Your task to perform on an android device: install app "Contacts" Image 0: 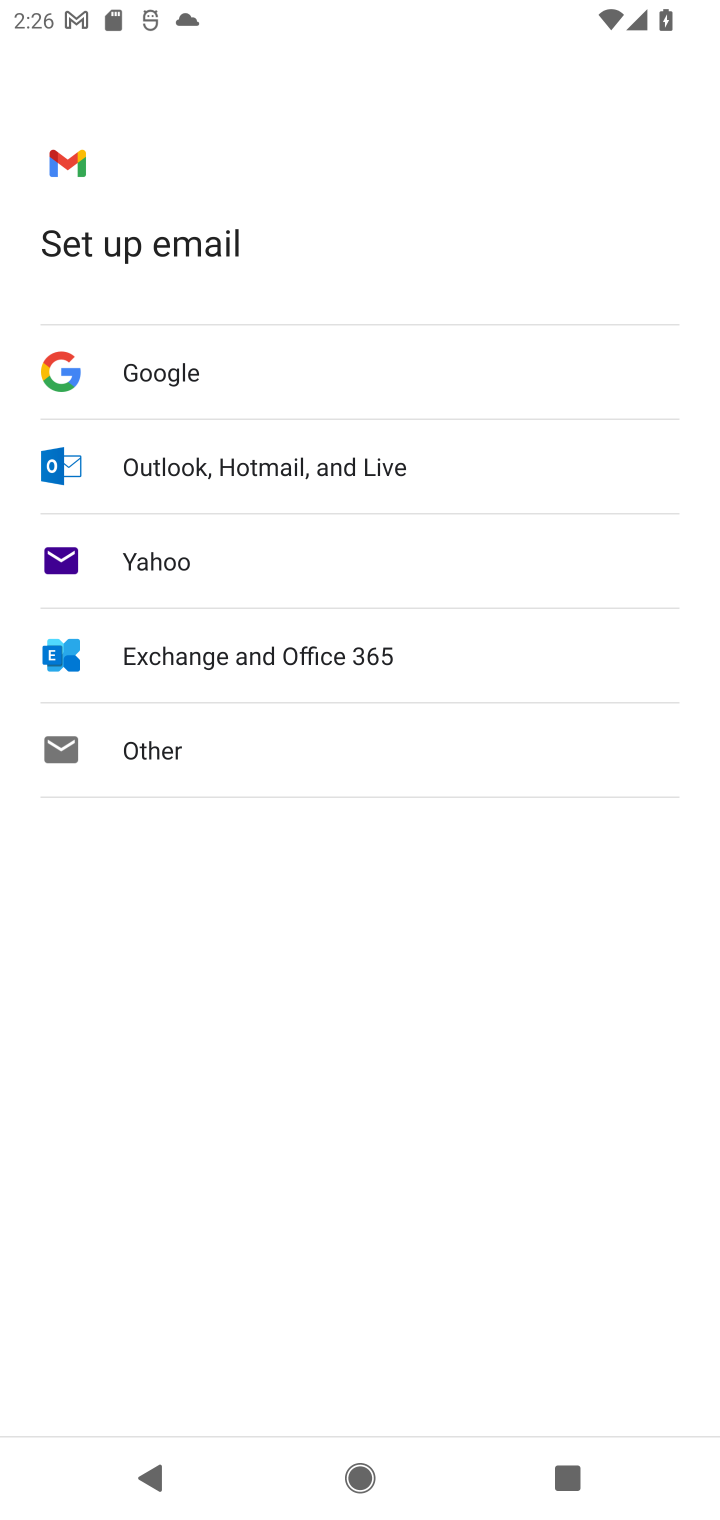
Step 0: press home button
Your task to perform on an android device: install app "Contacts" Image 1: 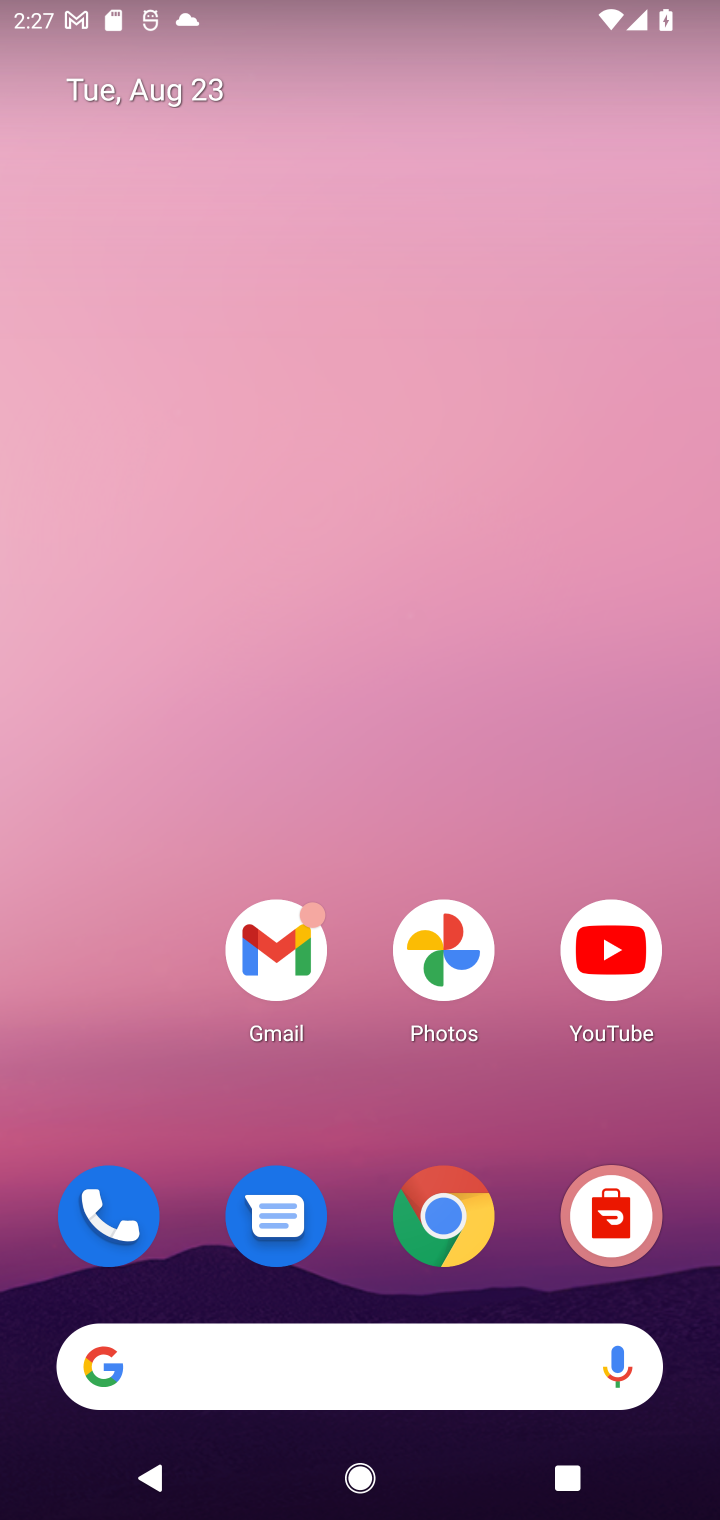
Step 1: drag from (313, 1302) to (369, 321)
Your task to perform on an android device: install app "Contacts" Image 2: 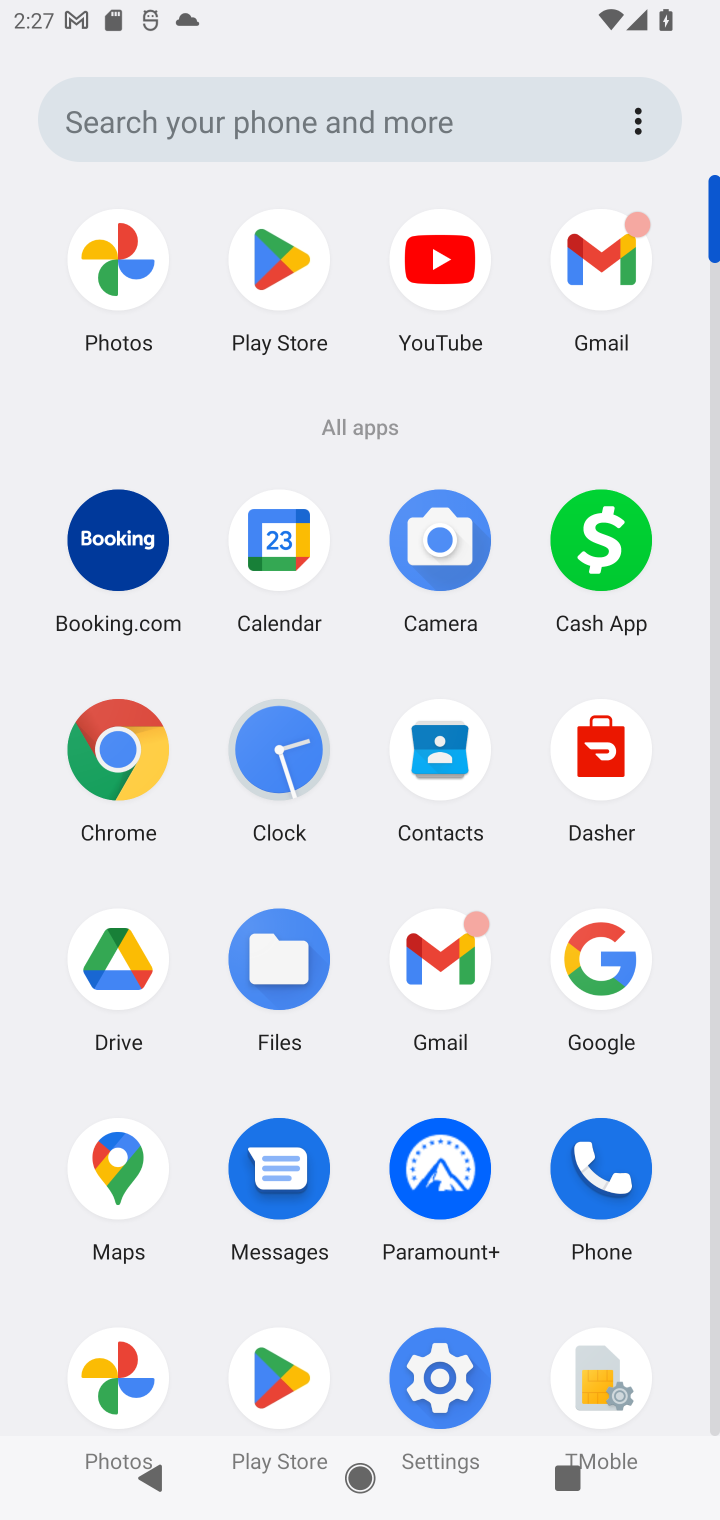
Step 2: click (268, 260)
Your task to perform on an android device: install app "Contacts" Image 3: 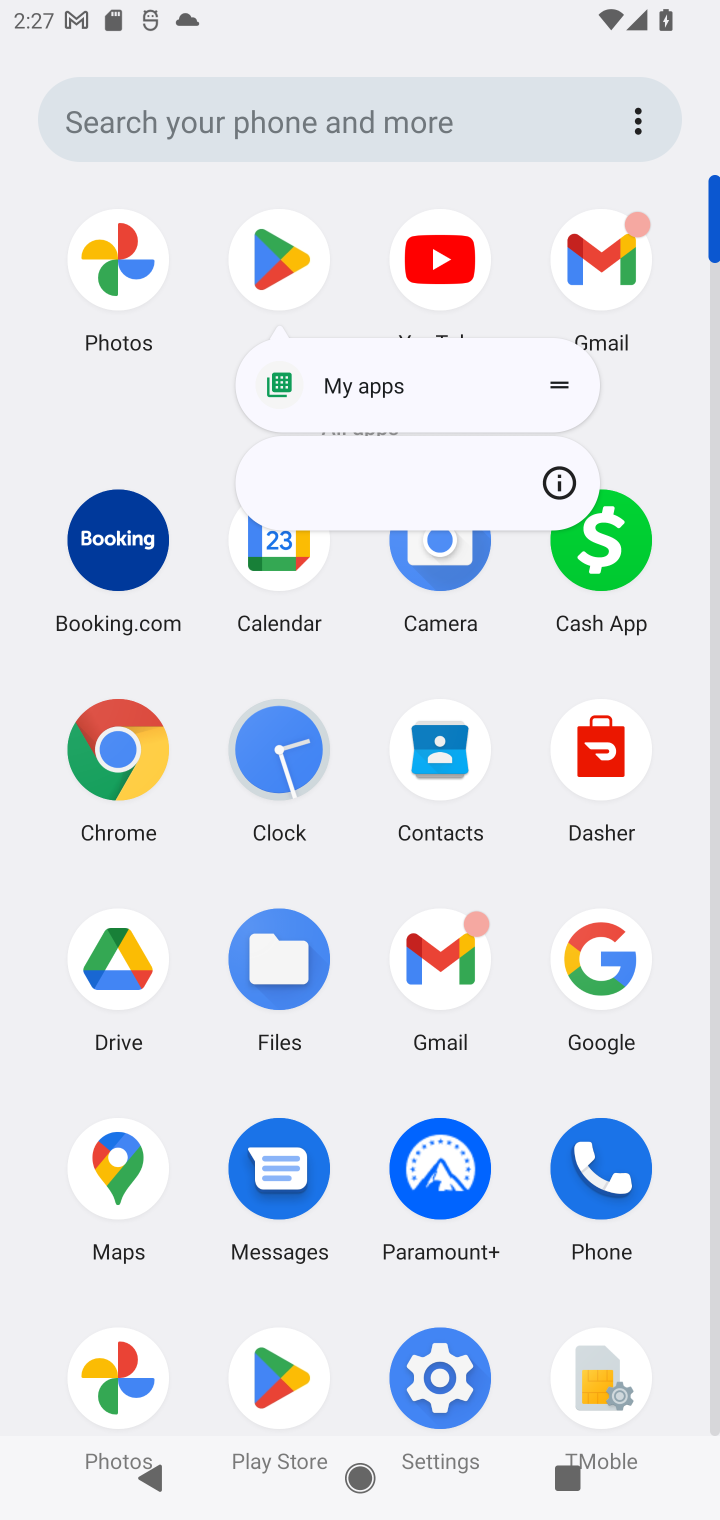
Step 3: click (281, 284)
Your task to perform on an android device: install app "Contacts" Image 4: 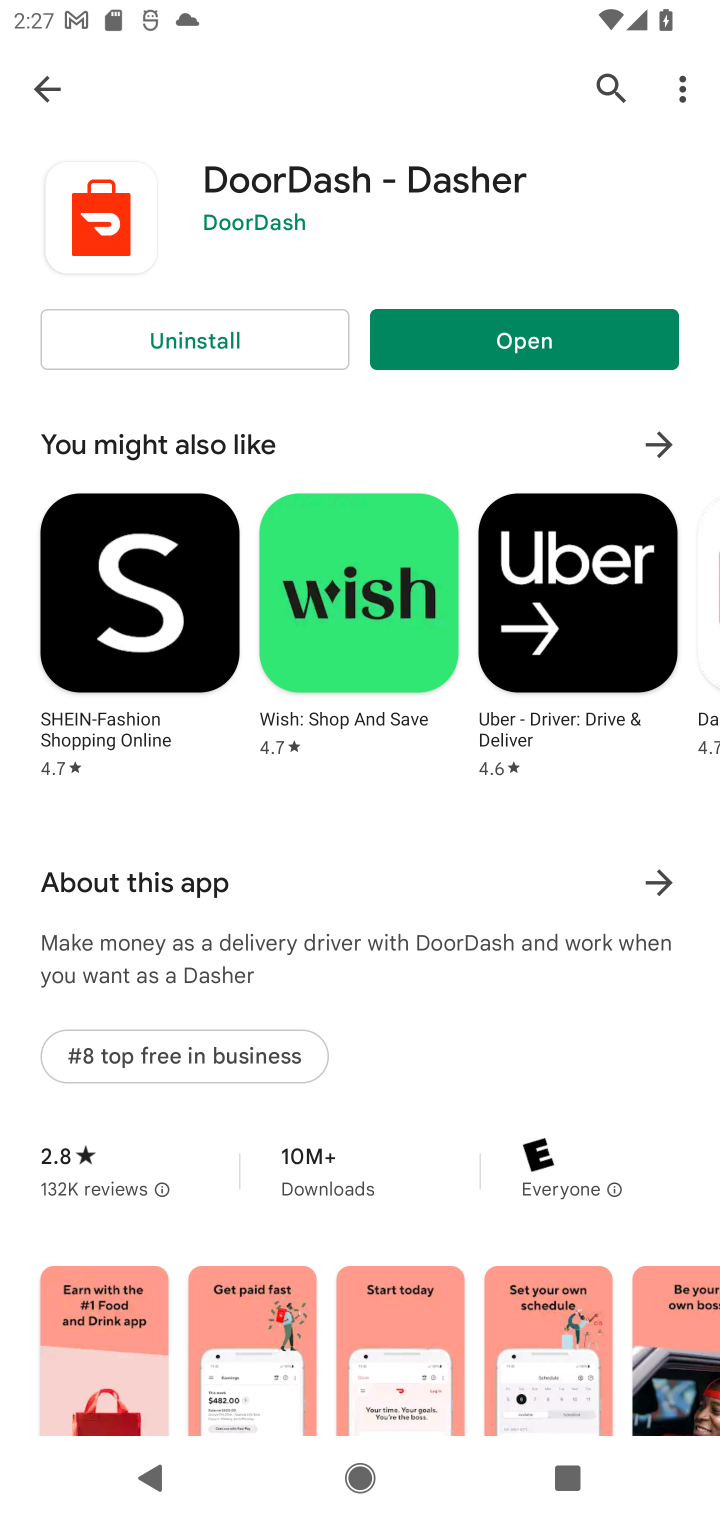
Step 4: click (42, 72)
Your task to perform on an android device: install app "Contacts" Image 5: 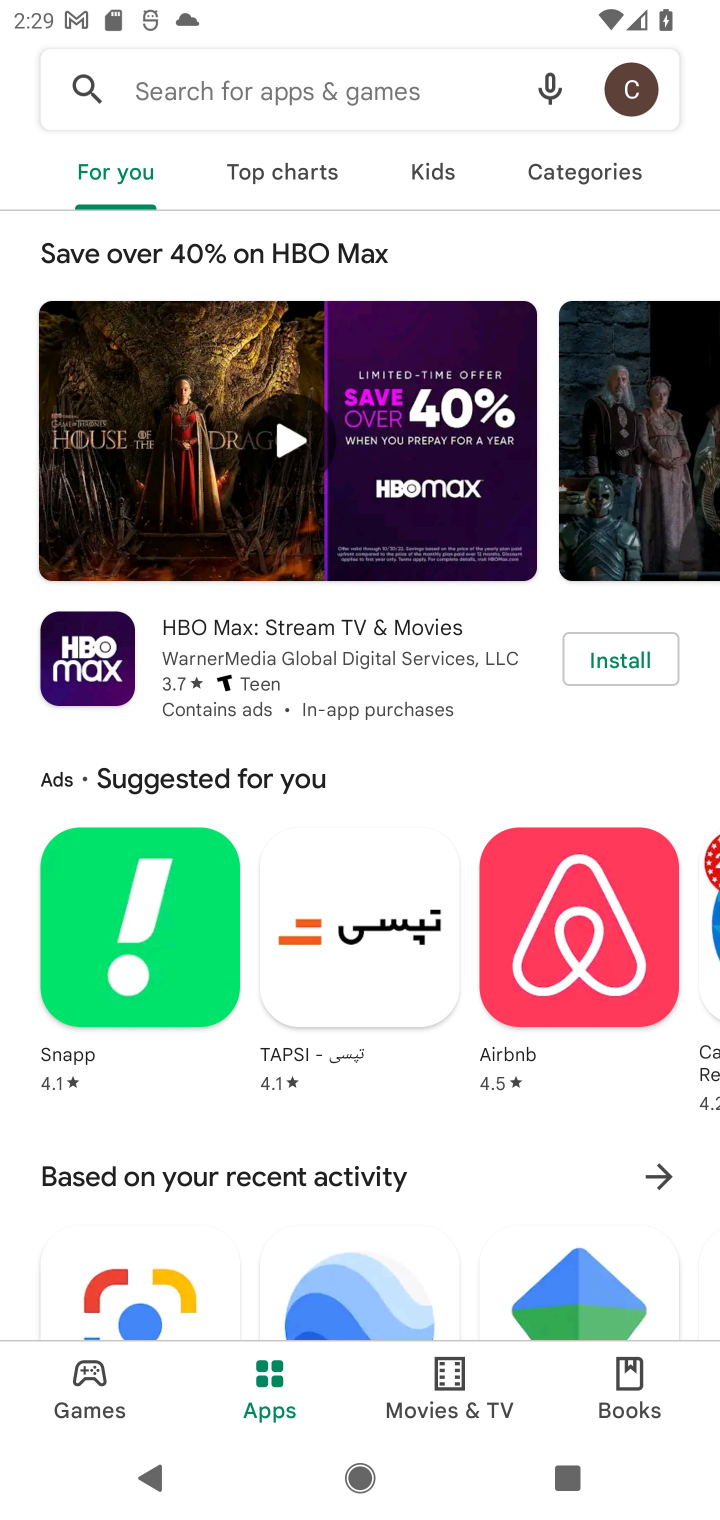
Step 5: click (364, 80)
Your task to perform on an android device: install app "Contacts" Image 6: 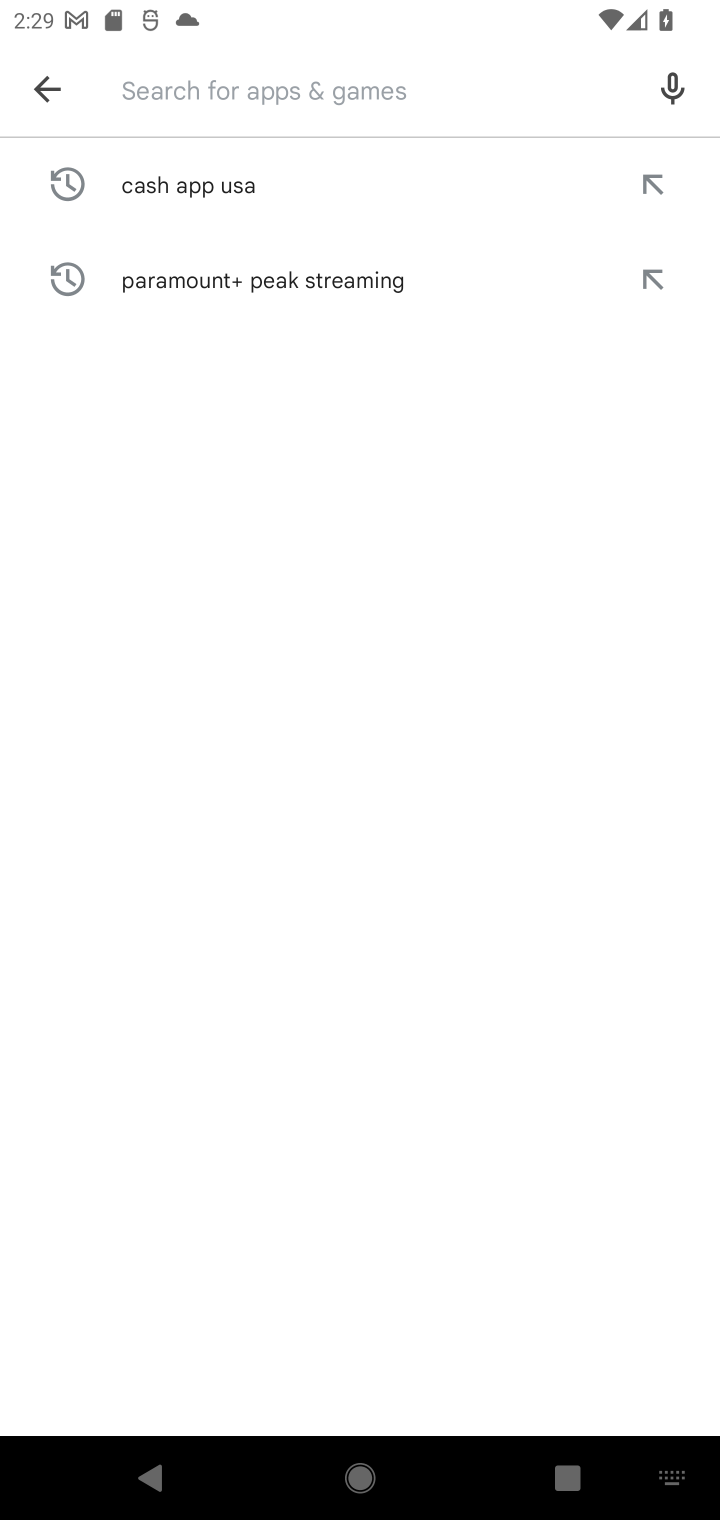
Step 6: type "Contacts "
Your task to perform on an android device: install app "Contacts" Image 7: 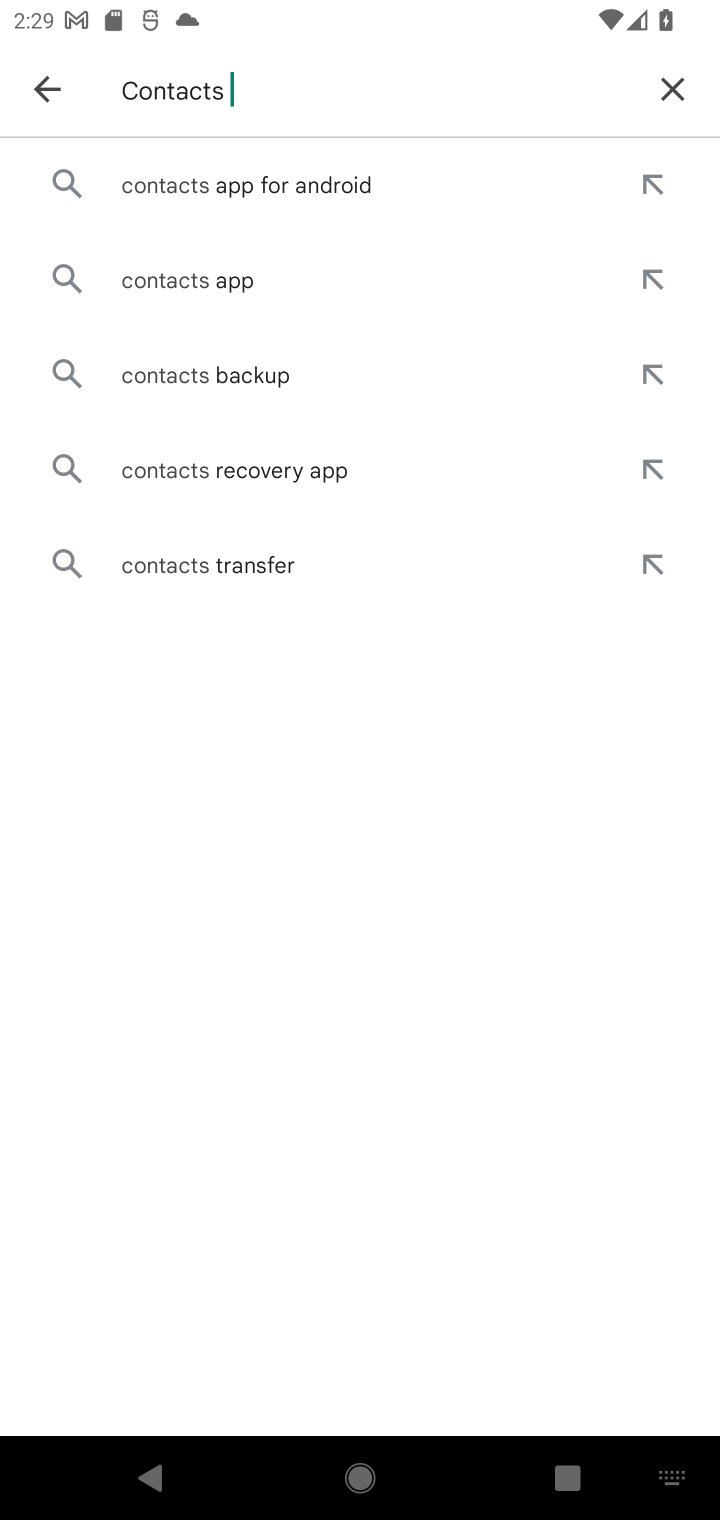
Step 7: click (217, 158)
Your task to perform on an android device: install app "Contacts" Image 8: 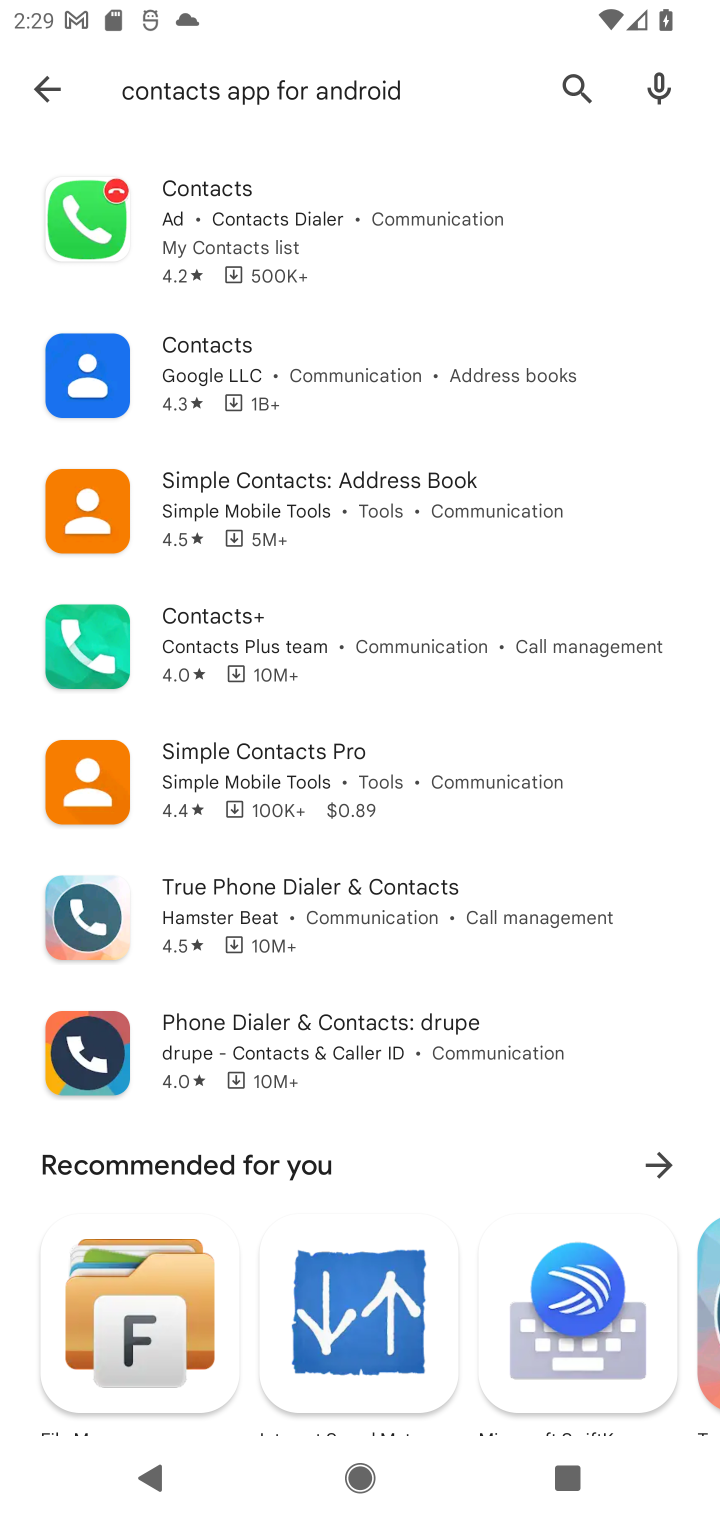
Step 8: click (342, 214)
Your task to perform on an android device: install app "Contacts" Image 9: 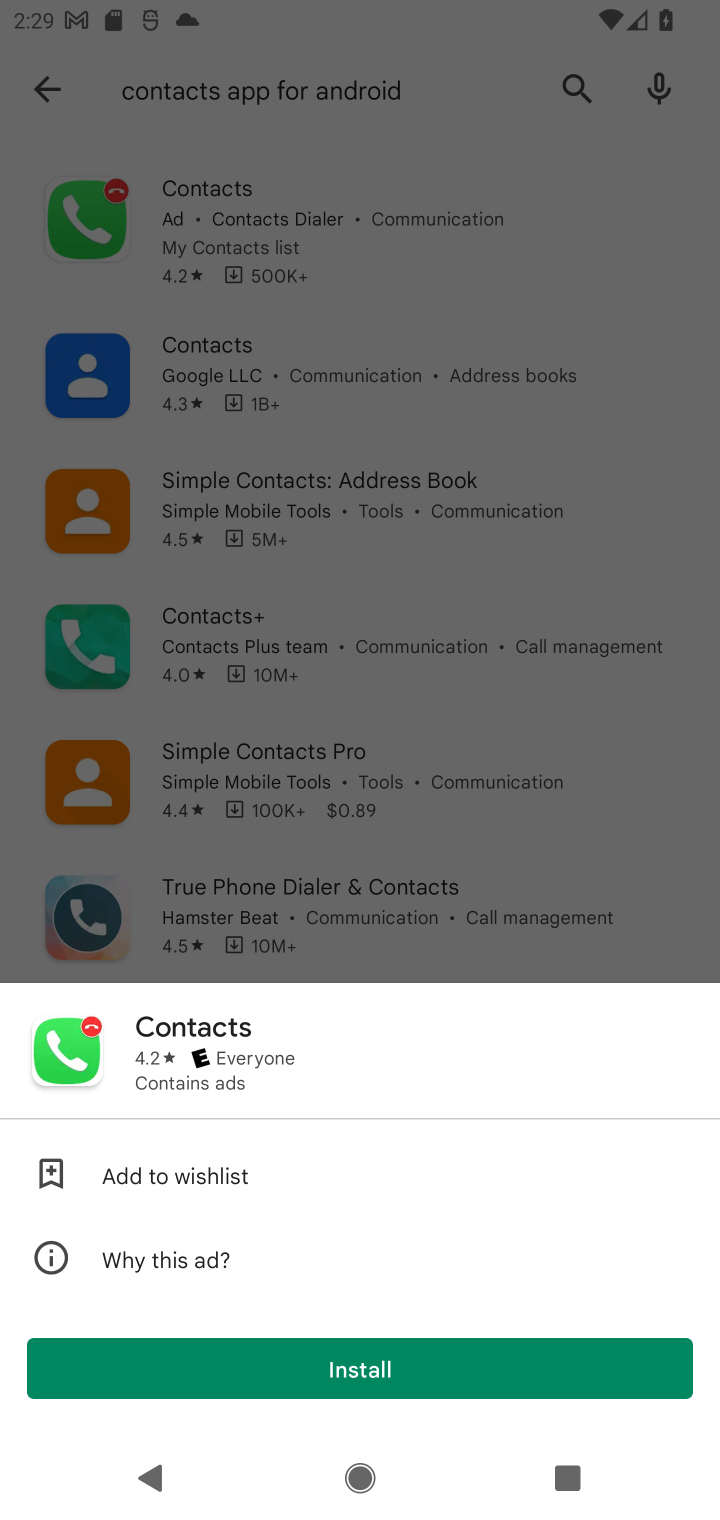
Step 9: click (382, 1368)
Your task to perform on an android device: install app "Contacts" Image 10: 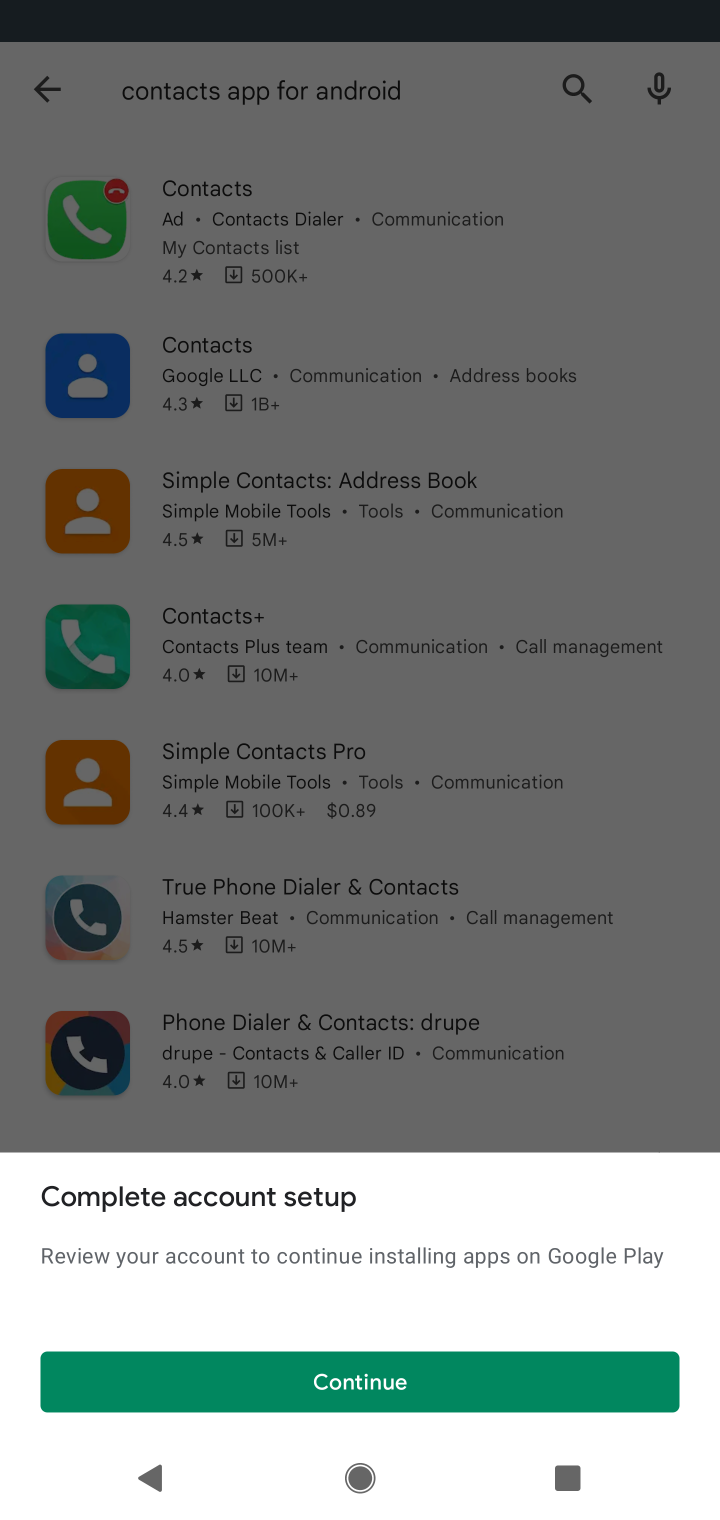
Step 10: task complete